Your task to perform on an android device: add a label to a message in the gmail app Image 0: 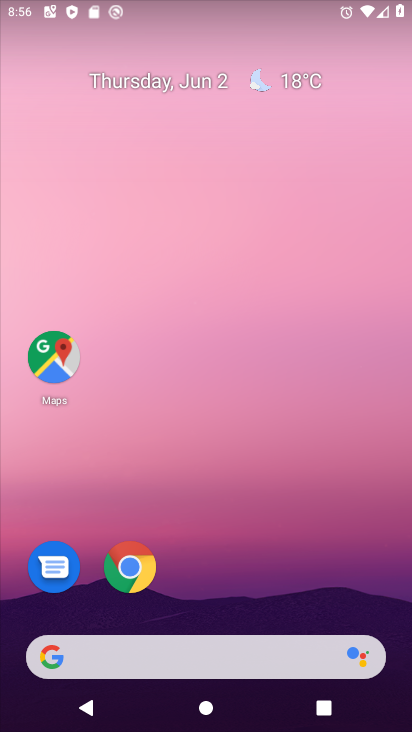
Step 0: drag from (225, 609) to (339, 61)
Your task to perform on an android device: add a label to a message in the gmail app Image 1: 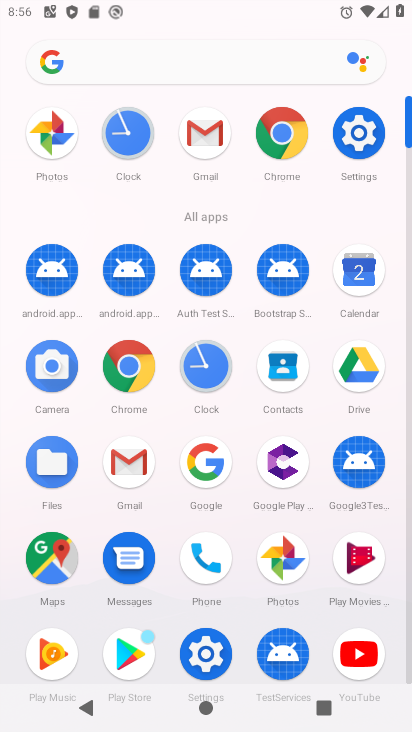
Step 1: click (127, 481)
Your task to perform on an android device: add a label to a message in the gmail app Image 2: 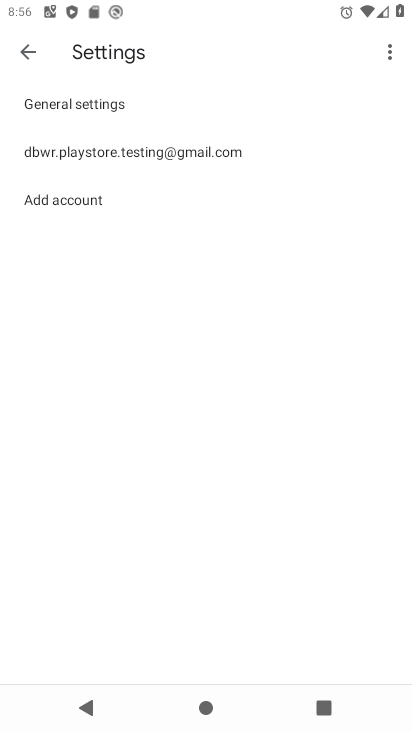
Step 2: click (27, 64)
Your task to perform on an android device: add a label to a message in the gmail app Image 3: 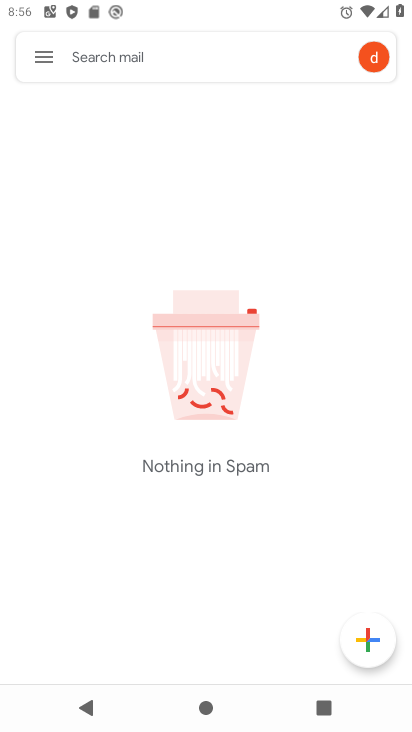
Step 3: click (38, 56)
Your task to perform on an android device: add a label to a message in the gmail app Image 4: 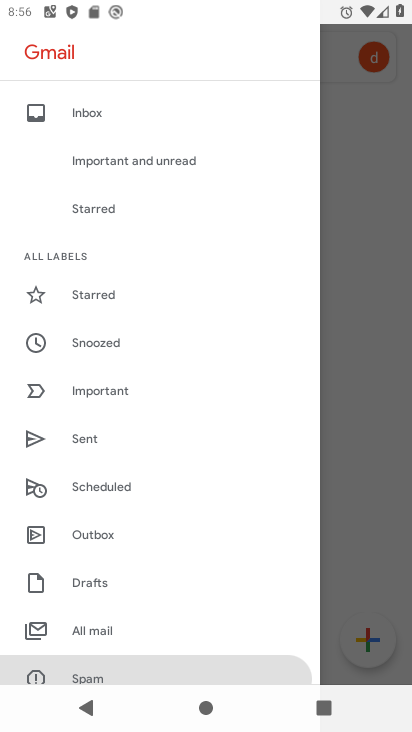
Step 4: drag from (104, 571) to (151, 291)
Your task to perform on an android device: add a label to a message in the gmail app Image 5: 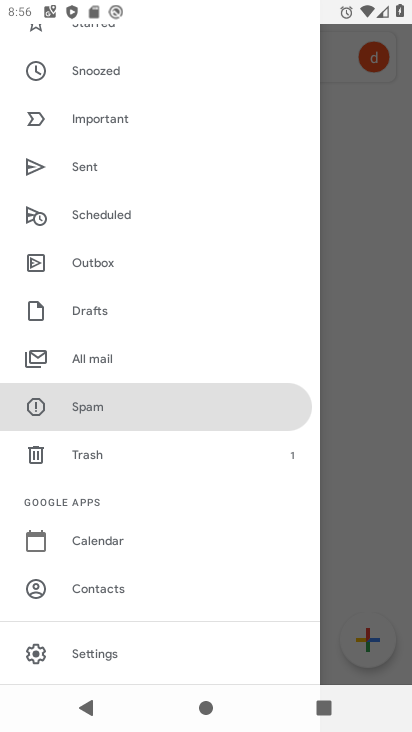
Step 5: click (93, 364)
Your task to perform on an android device: add a label to a message in the gmail app Image 6: 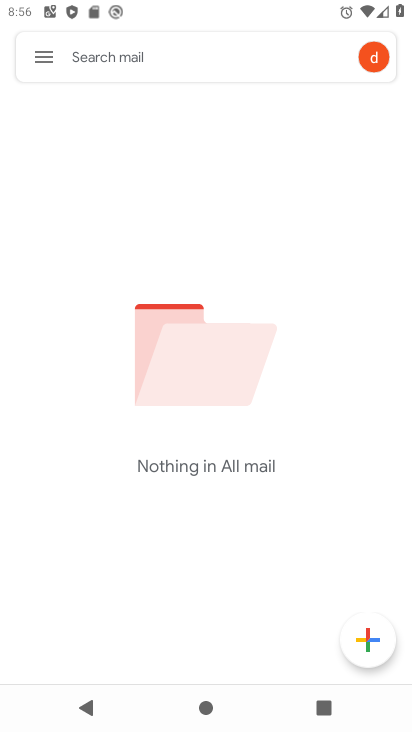
Step 6: task complete